Your task to perform on an android device: Search for Mexican restaurants on Maps Image 0: 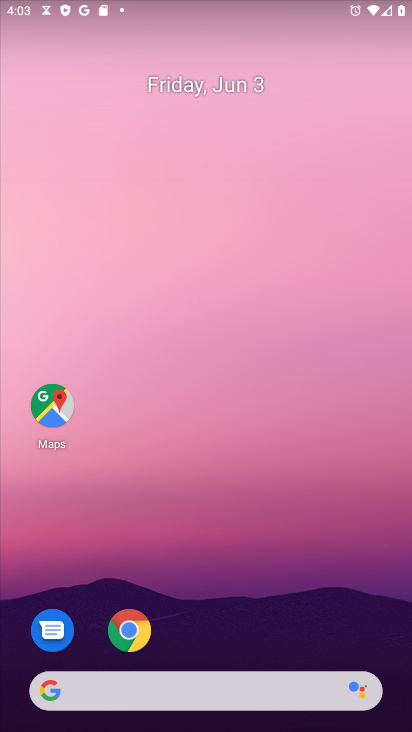
Step 0: drag from (269, 603) to (280, 30)
Your task to perform on an android device: Search for Mexican restaurants on Maps Image 1: 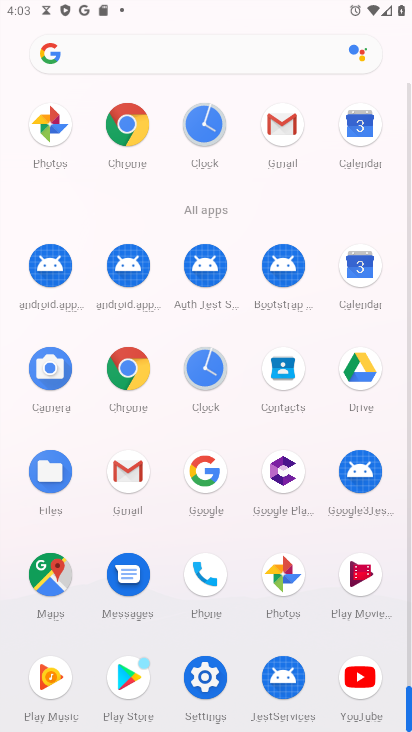
Step 1: drag from (8, 577) to (3, 185)
Your task to perform on an android device: Search for Mexican restaurants on Maps Image 2: 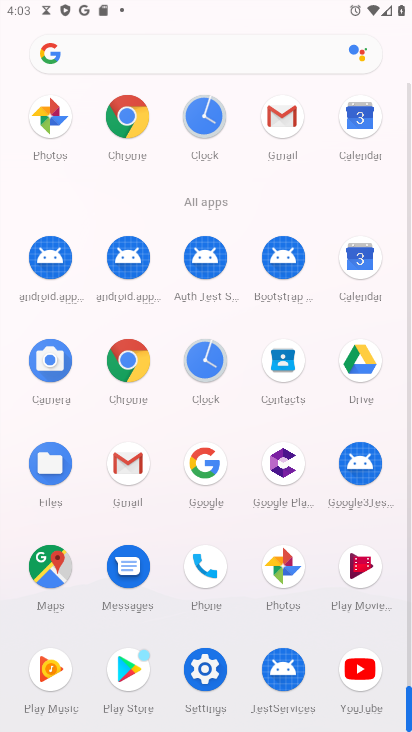
Step 2: click (48, 562)
Your task to perform on an android device: Search for Mexican restaurants on Maps Image 3: 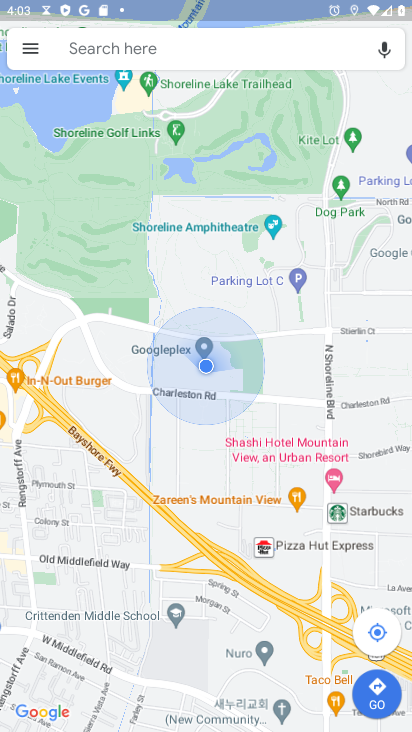
Step 3: click (201, 51)
Your task to perform on an android device: Search for Mexican restaurants on Maps Image 4: 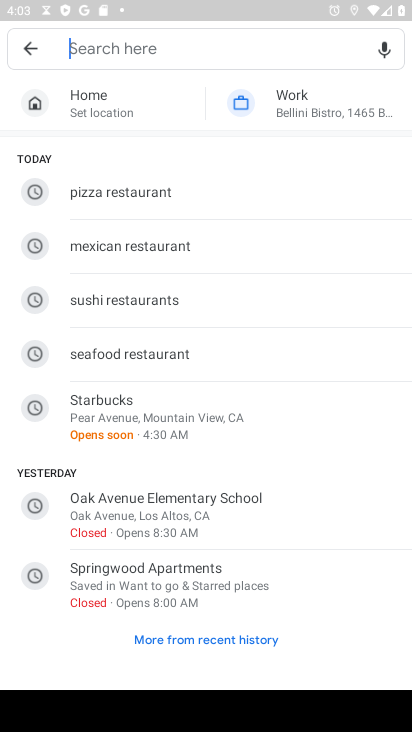
Step 4: click (149, 241)
Your task to perform on an android device: Search for Mexican restaurants on Maps Image 5: 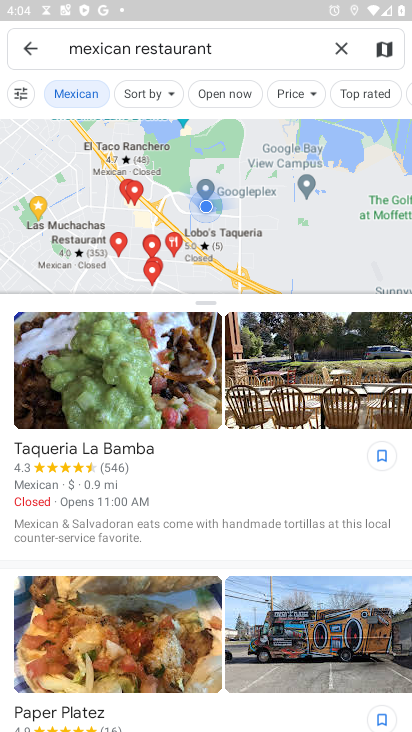
Step 5: task complete